Your task to perform on an android device: toggle notification dots Image 0: 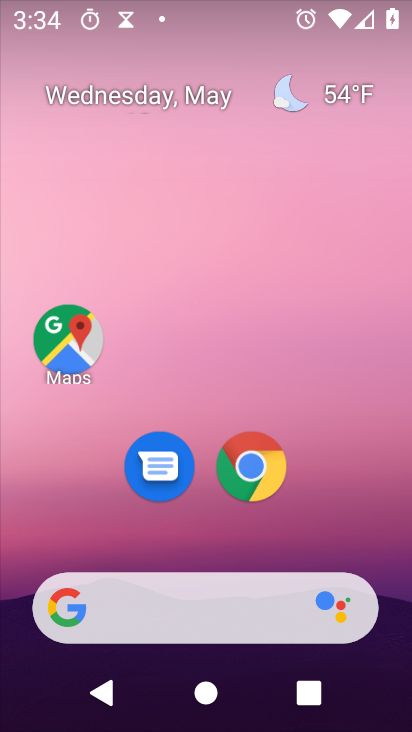
Step 0: drag from (381, 572) to (257, 10)
Your task to perform on an android device: toggle notification dots Image 1: 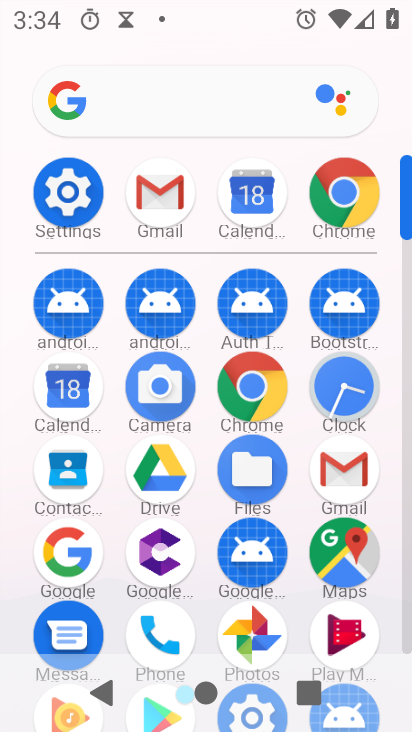
Step 1: click (60, 187)
Your task to perform on an android device: toggle notification dots Image 2: 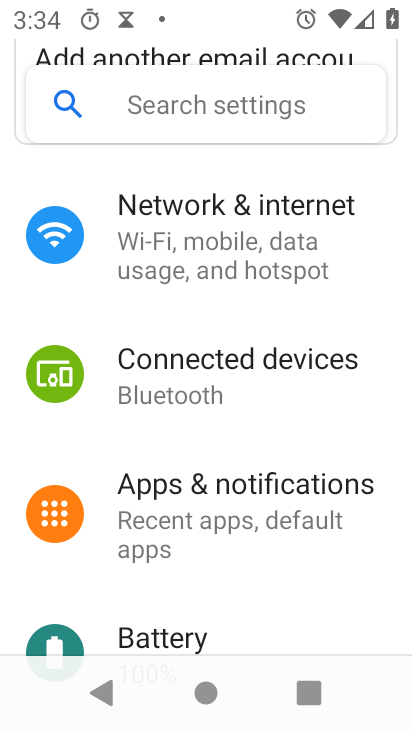
Step 2: click (261, 519)
Your task to perform on an android device: toggle notification dots Image 3: 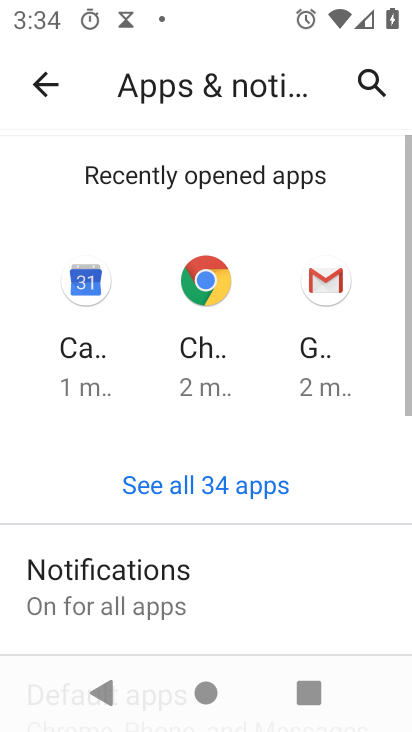
Step 3: click (285, 580)
Your task to perform on an android device: toggle notification dots Image 4: 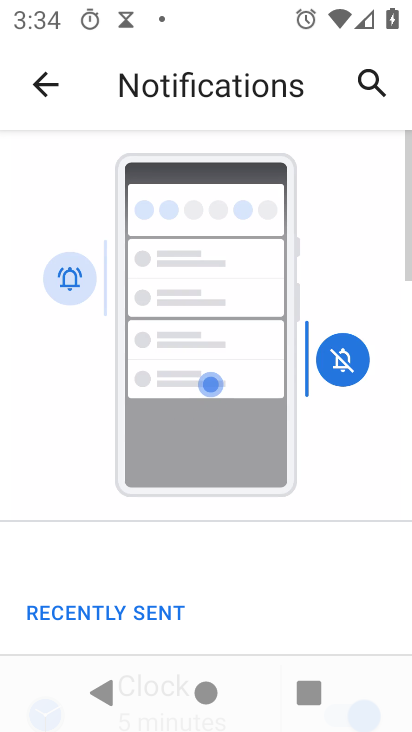
Step 4: drag from (285, 580) to (279, 50)
Your task to perform on an android device: toggle notification dots Image 5: 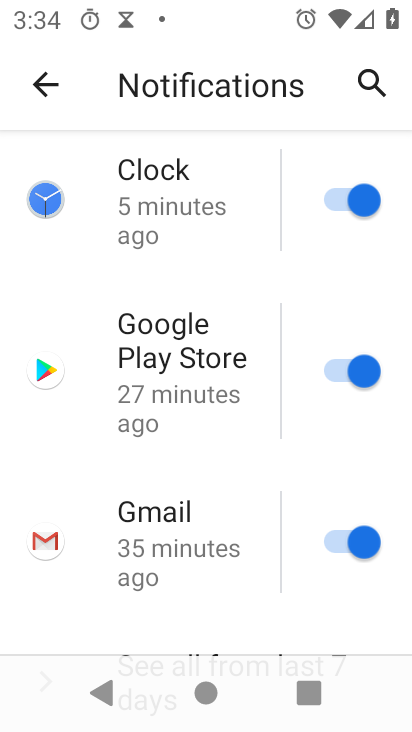
Step 5: drag from (285, 633) to (261, 115)
Your task to perform on an android device: toggle notification dots Image 6: 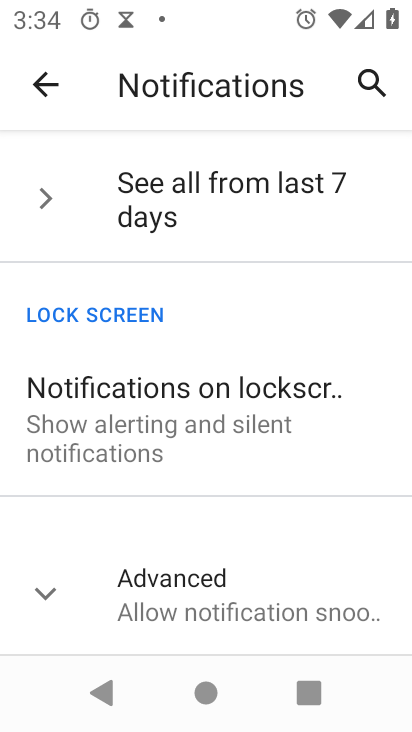
Step 6: drag from (337, 616) to (298, 288)
Your task to perform on an android device: toggle notification dots Image 7: 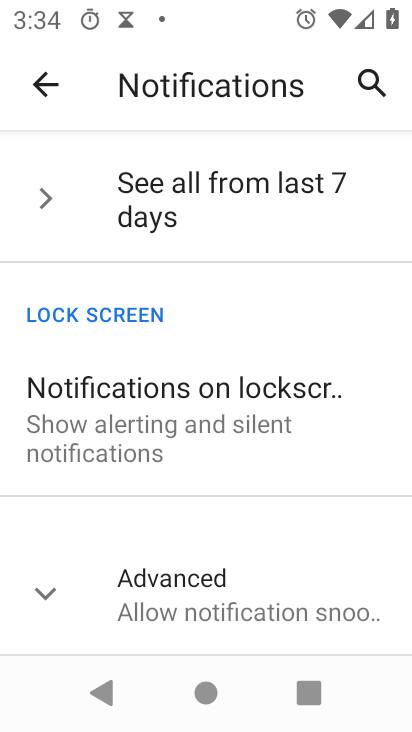
Step 7: click (298, 582)
Your task to perform on an android device: toggle notification dots Image 8: 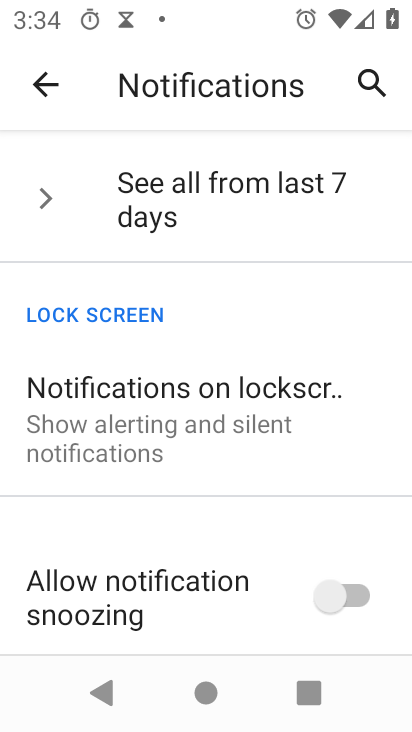
Step 8: drag from (298, 582) to (267, 162)
Your task to perform on an android device: toggle notification dots Image 9: 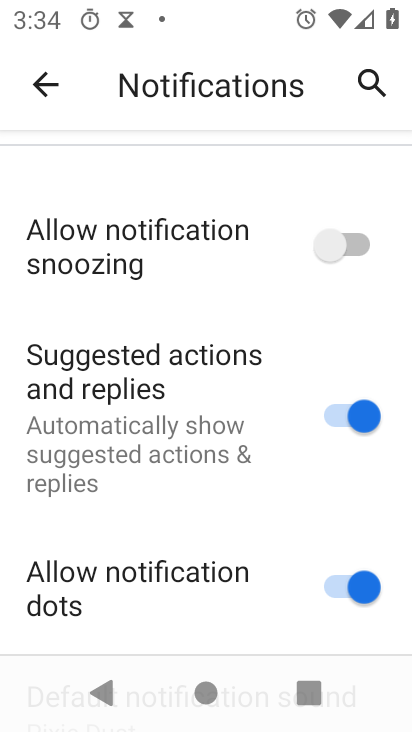
Step 9: drag from (305, 595) to (295, 493)
Your task to perform on an android device: toggle notification dots Image 10: 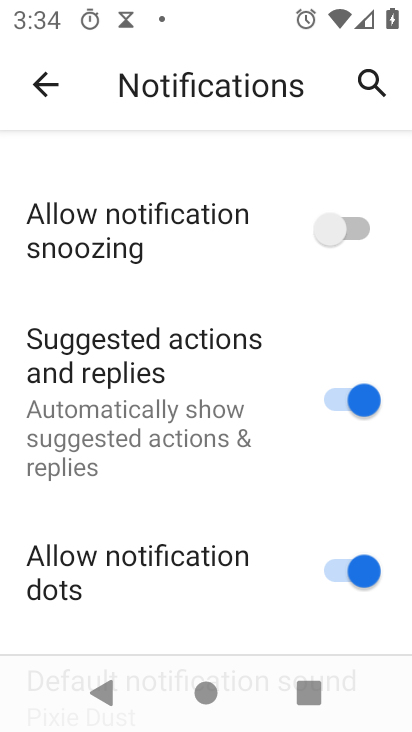
Step 10: click (345, 564)
Your task to perform on an android device: toggle notification dots Image 11: 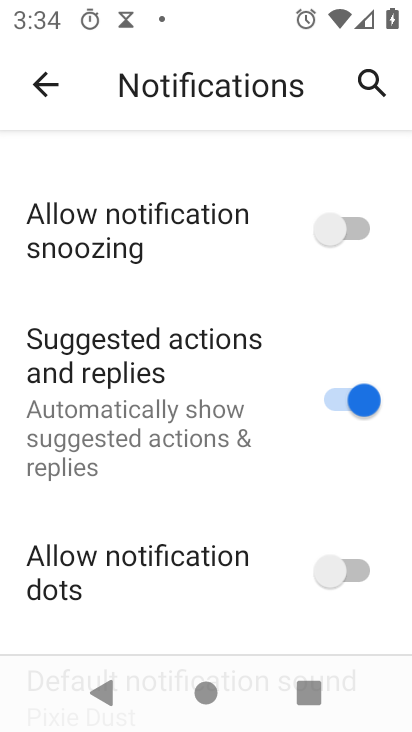
Step 11: task complete